Your task to perform on an android device: What is the recent news? Image 0: 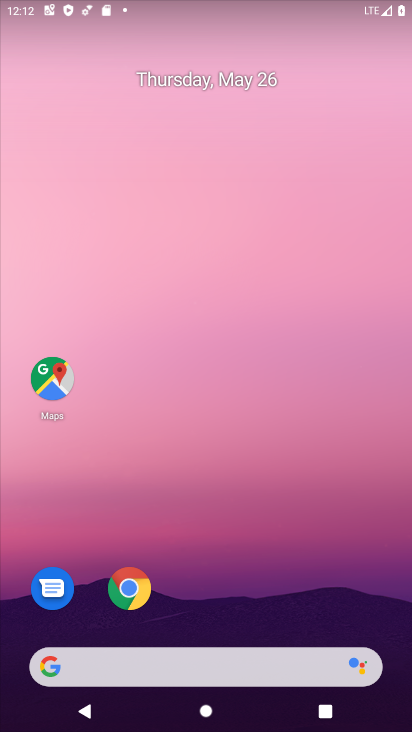
Step 0: drag from (230, 576) to (135, 6)
Your task to perform on an android device: What is the recent news? Image 1: 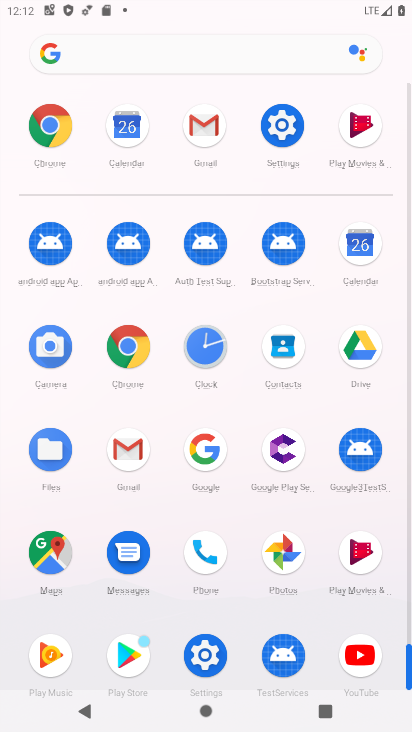
Step 1: drag from (12, 560) to (10, 247)
Your task to perform on an android device: What is the recent news? Image 2: 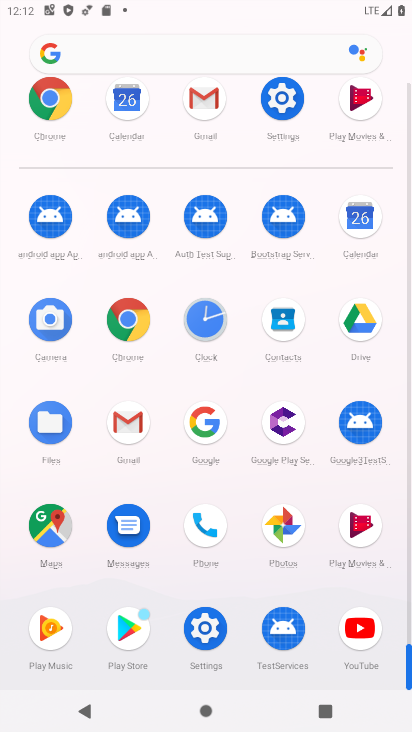
Step 2: click (126, 311)
Your task to perform on an android device: What is the recent news? Image 3: 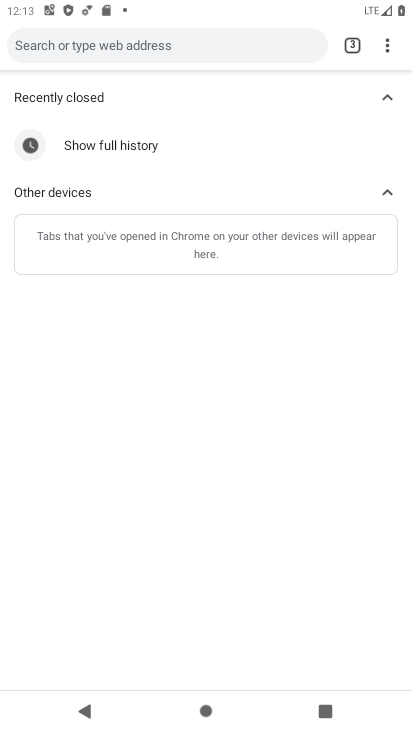
Step 3: click (210, 42)
Your task to perform on an android device: What is the recent news? Image 4: 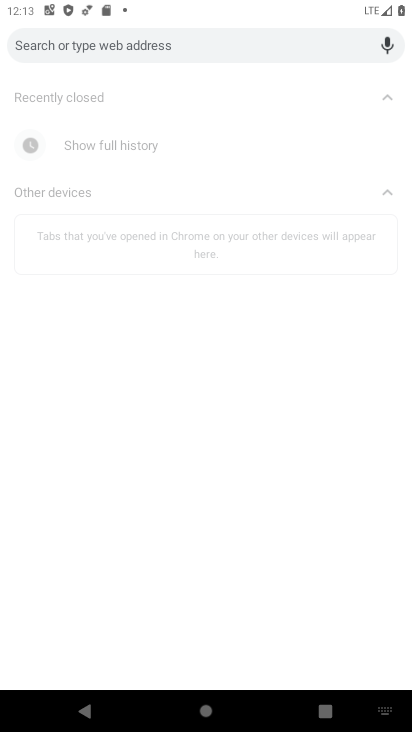
Step 4: type ""
Your task to perform on an android device: What is the recent news? Image 5: 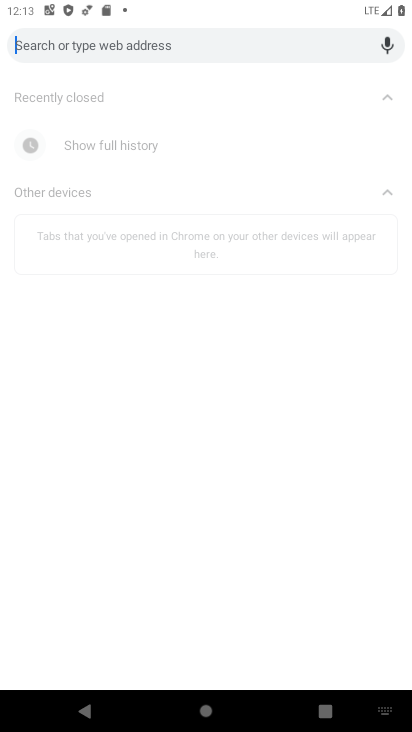
Step 5: type "What is the recent news?"
Your task to perform on an android device: What is the recent news? Image 6: 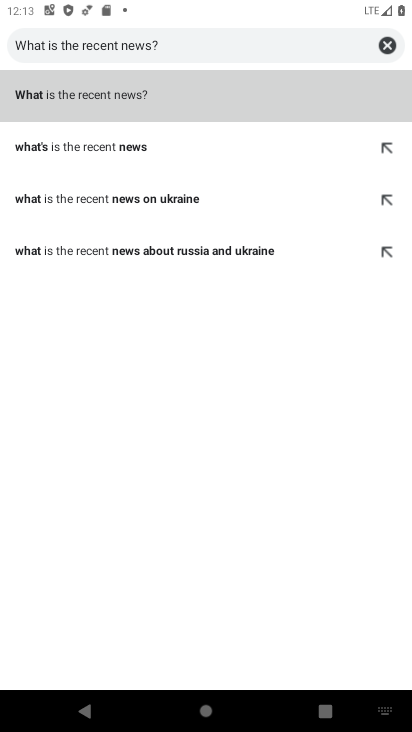
Step 6: click (169, 92)
Your task to perform on an android device: What is the recent news? Image 7: 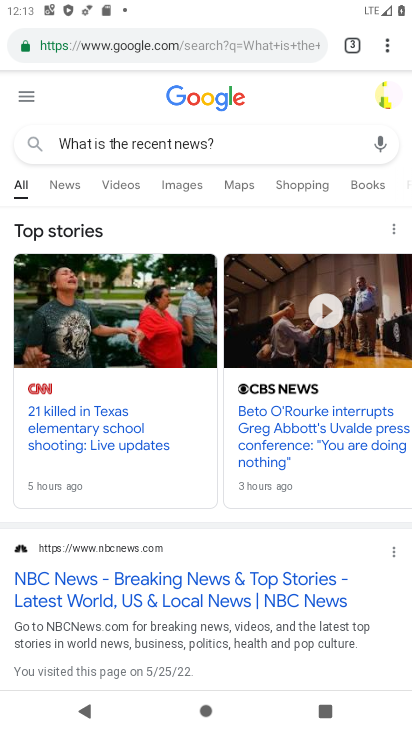
Step 7: task complete